Your task to perform on an android device: Open Chrome and go to settings Image 0: 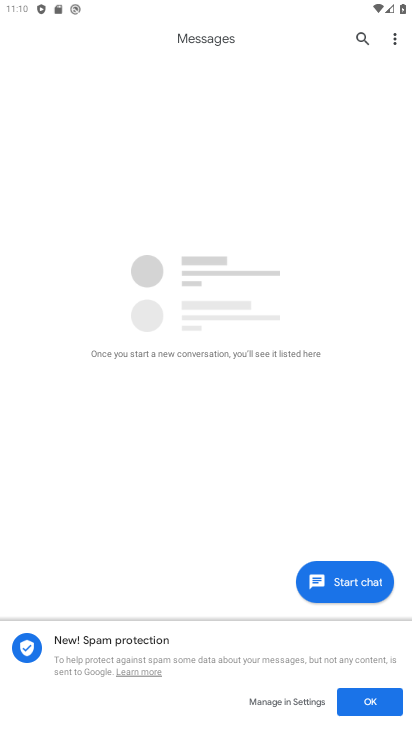
Step 0: press home button
Your task to perform on an android device: Open Chrome and go to settings Image 1: 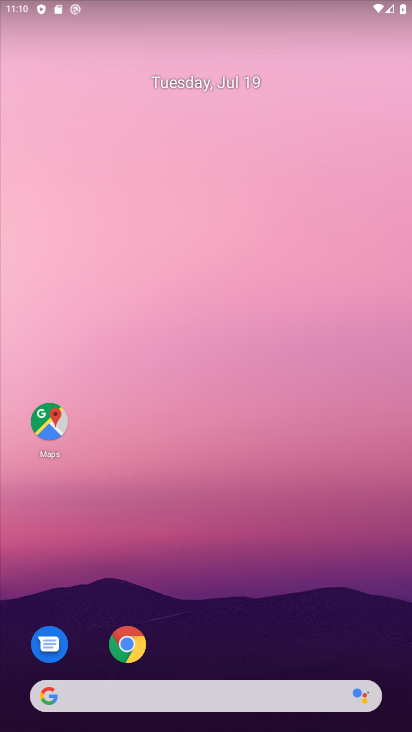
Step 1: click (147, 646)
Your task to perform on an android device: Open Chrome and go to settings Image 2: 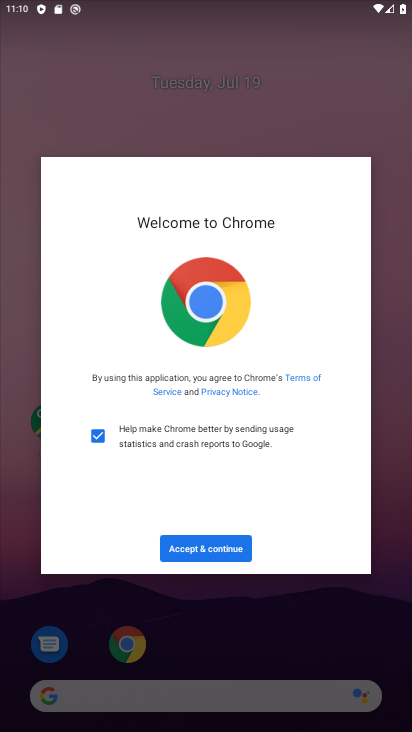
Step 2: click (209, 553)
Your task to perform on an android device: Open Chrome and go to settings Image 3: 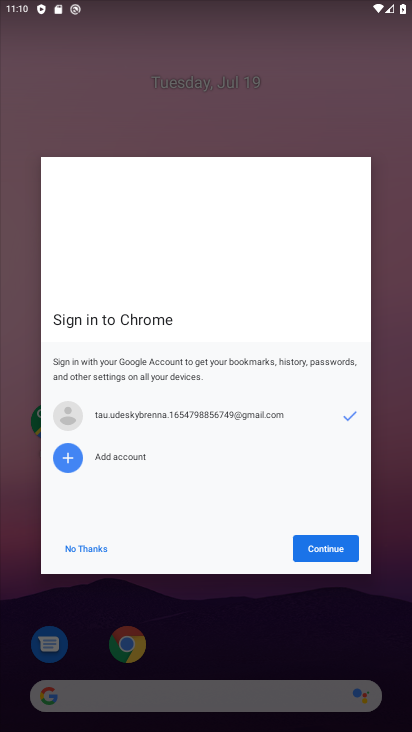
Step 3: click (304, 550)
Your task to perform on an android device: Open Chrome and go to settings Image 4: 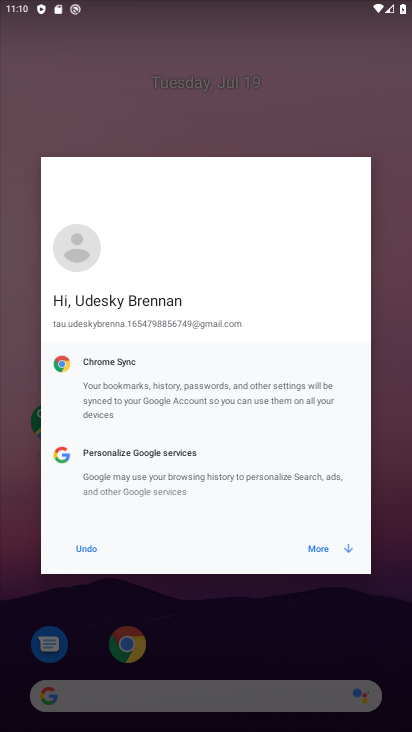
Step 4: click (335, 550)
Your task to perform on an android device: Open Chrome and go to settings Image 5: 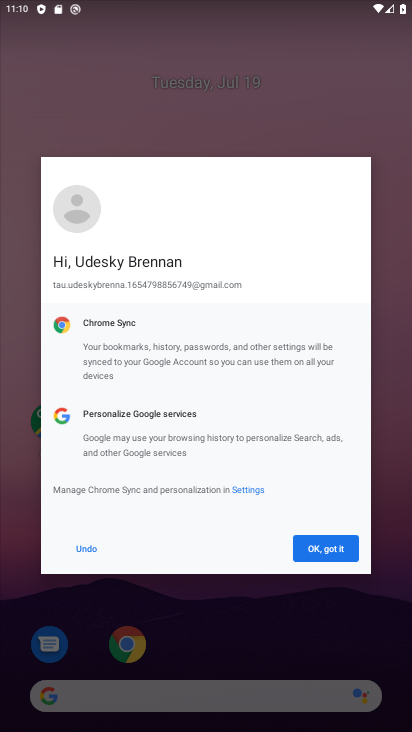
Step 5: click (329, 555)
Your task to perform on an android device: Open Chrome and go to settings Image 6: 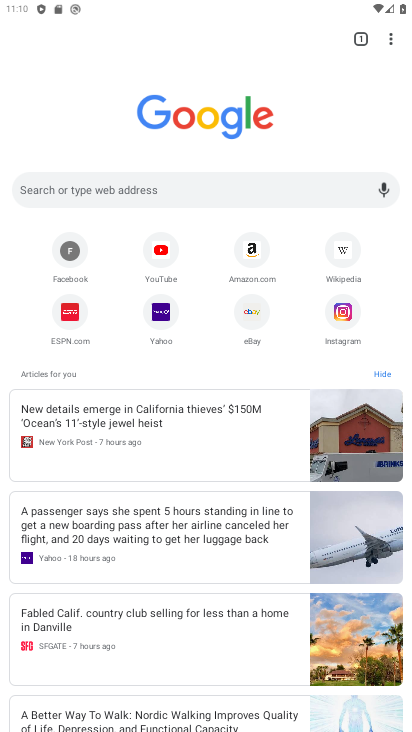
Step 6: click (385, 34)
Your task to perform on an android device: Open Chrome and go to settings Image 7: 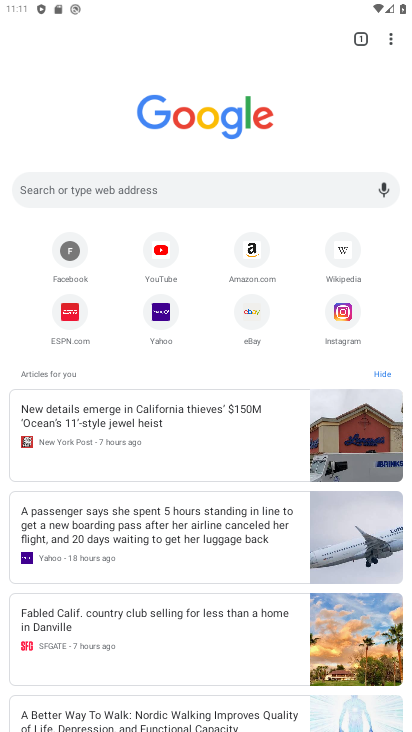
Step 7: click (392, 32)
Your task to perform on an android device: Open Chrome and go to settings Image 8: 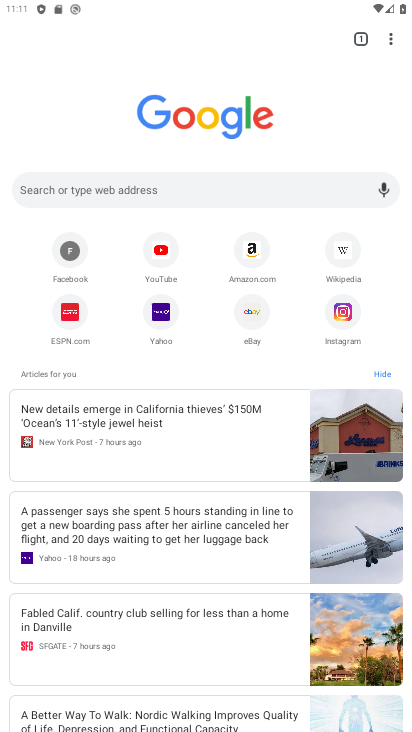
Step 8: click (390, 30)
Your task to perform on an android device: Open Chrome and go to settings Image 9: 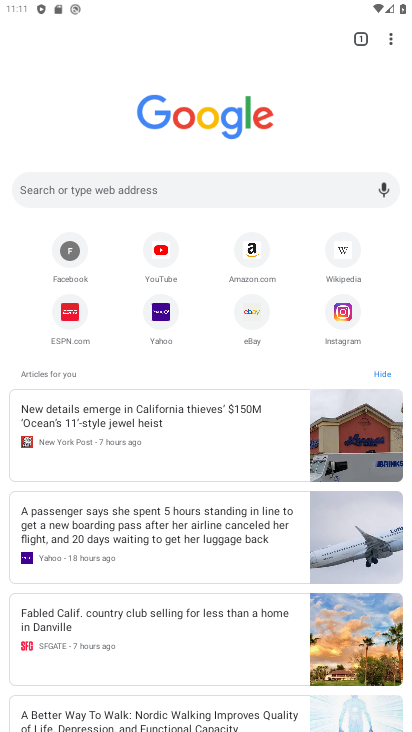
Step 9: click (385, 34)
Your task to perform on an android device: Open Chrome and go to settings Image 10: 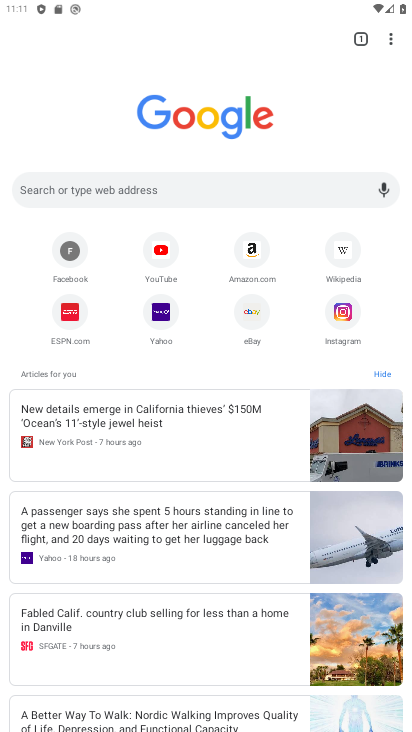
Step 10: click (391, 39)
Your task to perform on an android device: Open Chrome and go to settings Image 11: 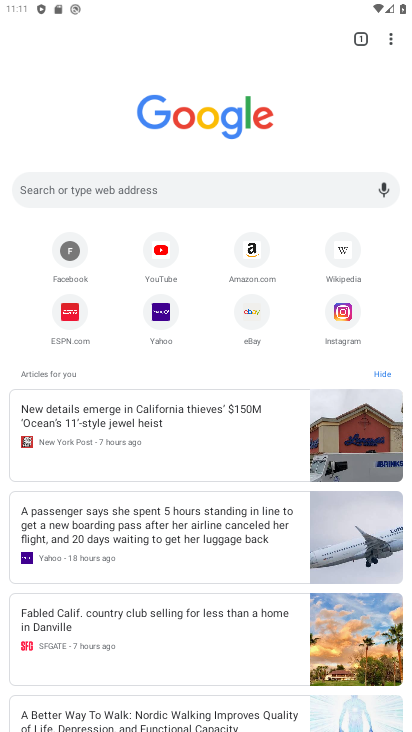
Step 11: click (386, 36)
Your task to perform on an android device: Open Chrome and go to settings Image 12: 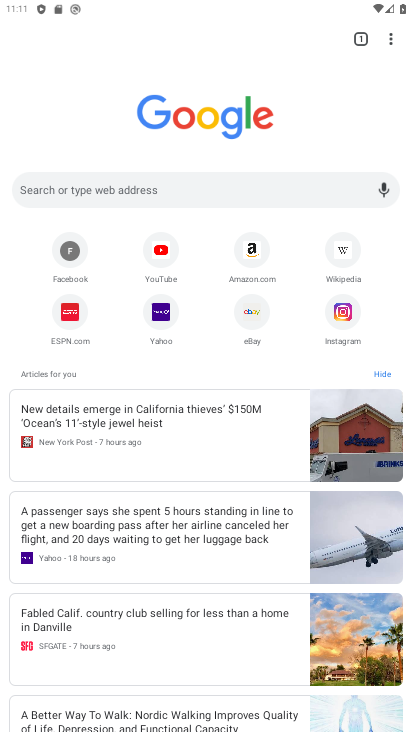
Step 12: task complete